Your task to perform on an android device: Go to network settings Image 0: 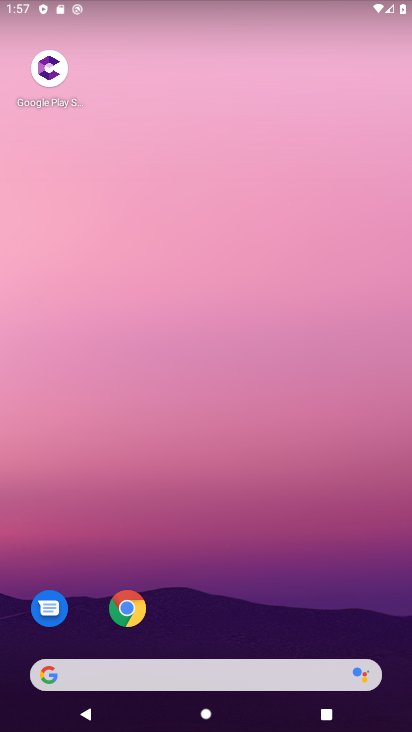
Step 0: drag from (230, 588) to (227, 188)
Your task to perform on an android device: Go to network settings Image 1: 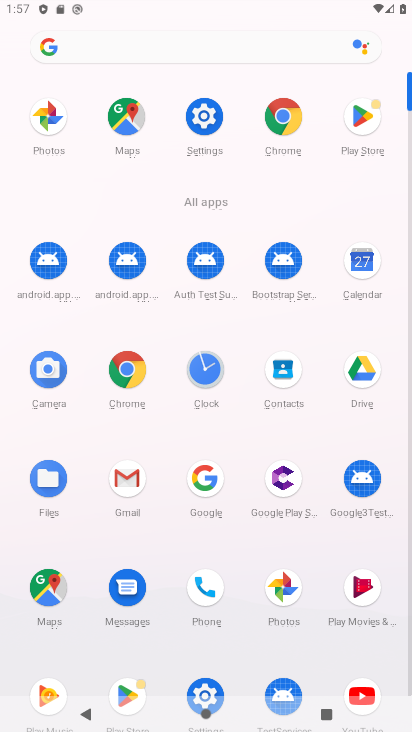
Step 1: click (202, 119)
Your task to perform on an android device: Go to network settings Image 2: 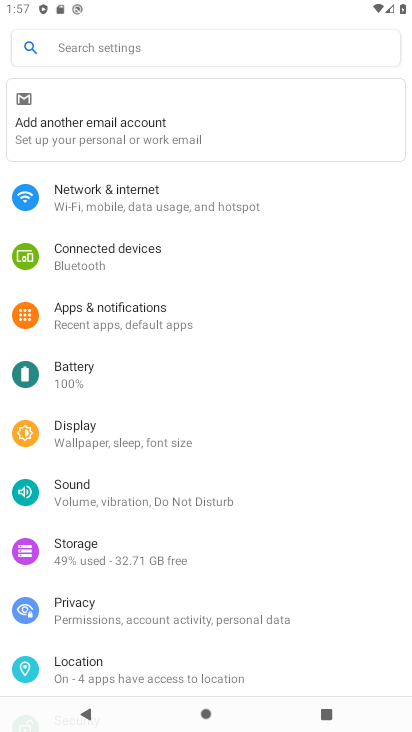
Step 2: click (106, 208)
Your task to perform on an android device: Go to network settings Image 3: 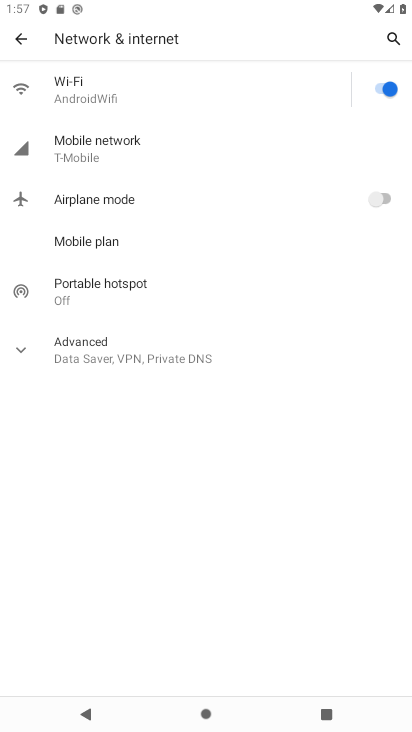
Step 3: task complete